Your task to perform on an android device: open chrome privacy settings Image 0: 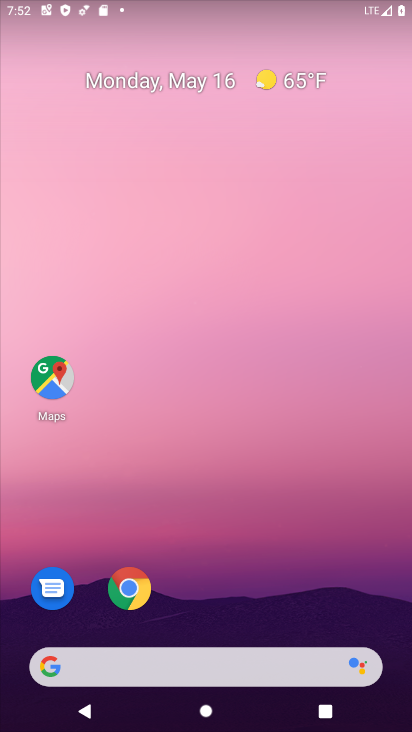
Step 0: drag from (285, 604) to (208, 25)
Your task to perform on an android device: open chrome privacy settings Image 1: 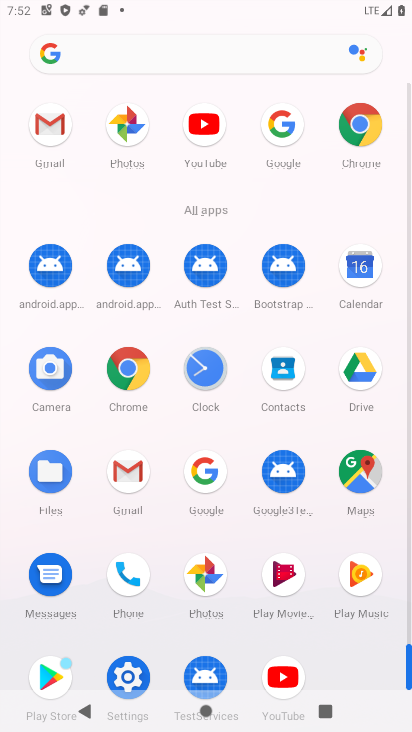
Step 1: drag from (0, 508) to (18, 259)
Your task to perform on an android device: open chrome privacy settings Image 2: 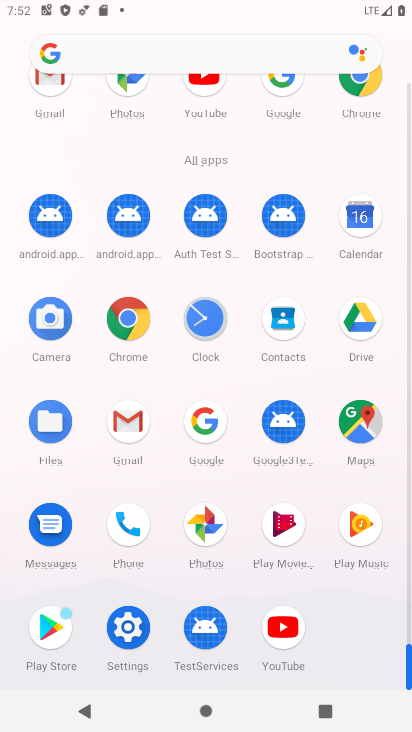
Step 2: click (127, 318)
Your task to perform on an android device: open chrome privacy settings Image 3: 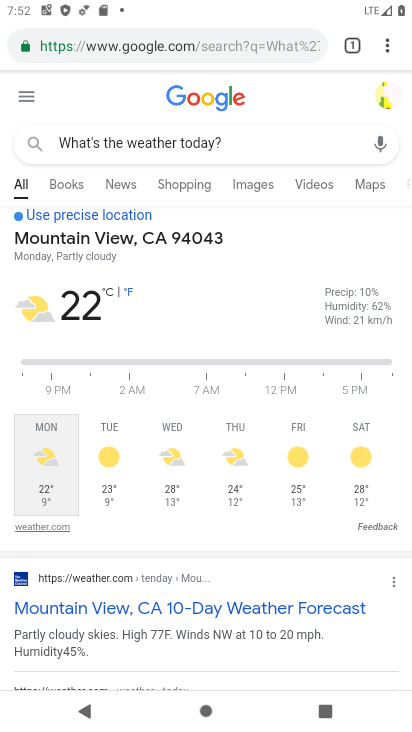
Step 3: drag from (386, 51) to (253, 497)
Your task to perform on an android device: open chrome privacy settings Image 4: 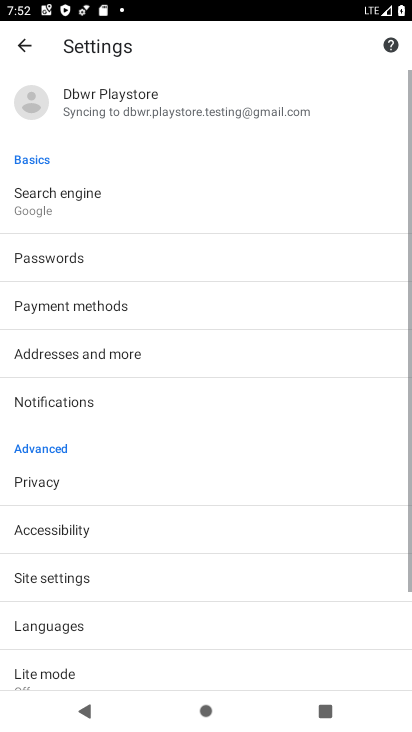
Step 4: click (65, 479)
Your task to perform on an android device: open chrome privacy settings Image 5: 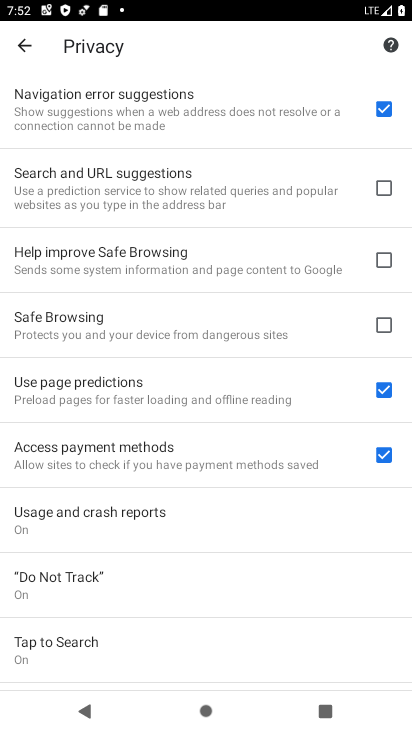
Step 5: task complete